Your task to perform on an android device: turn smart compose on in the gmail app Image 0: 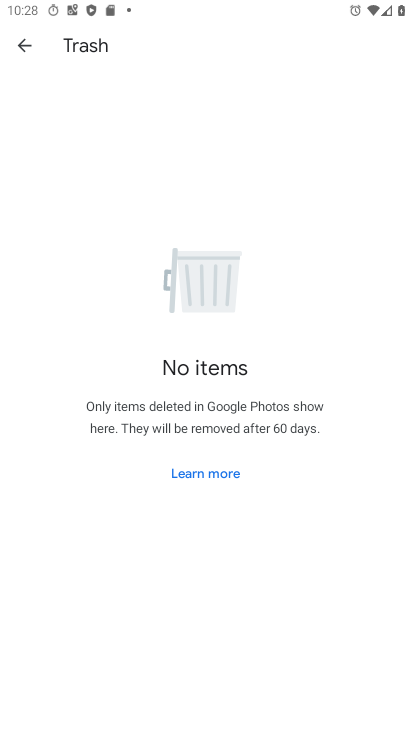
Step 0: press home button
Your task to perform on an android device: turn smart compose on in the gmail app Image 1: 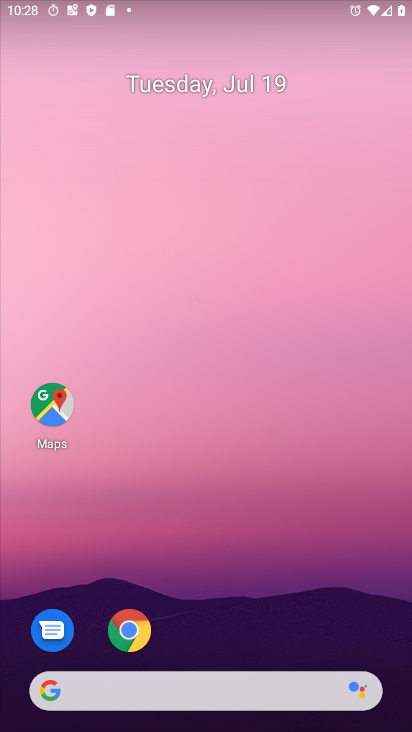
Step 1: drag from (285, 597) to (252, 101)
Your task to perform on an android device: turn smart compose on in the gmail app Image 2: 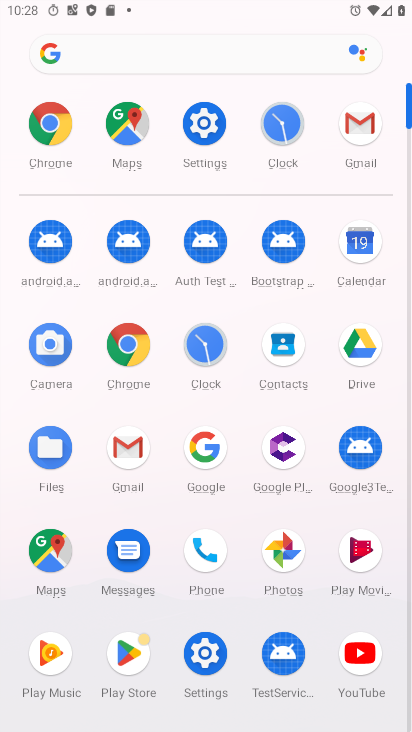
Step 2: click (366, 124)
Your task to perform on an android device: turn smart compose on in the gmail app Image 3: 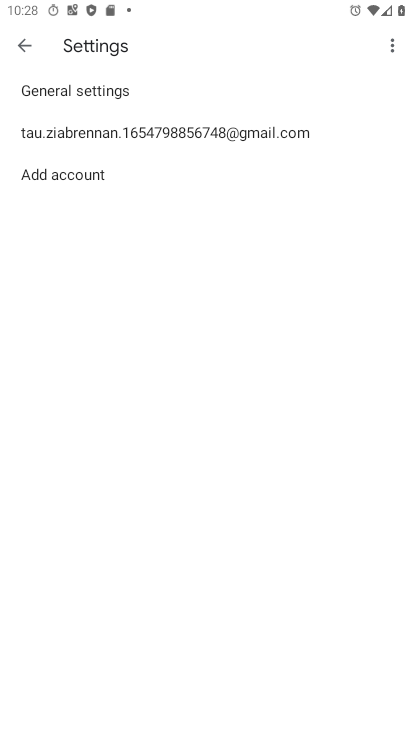
Step 3: click (86, 129)
Your task to perform on an android device: turn smart compose on in the gmail app Image 4: 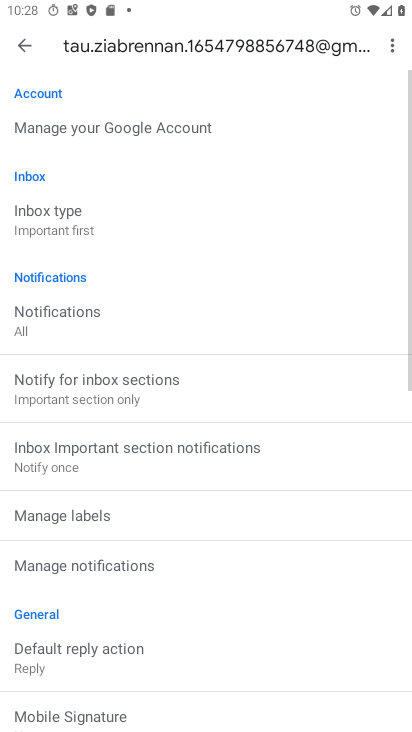
Step 4: task complete